Your task to perform on an android device: find which apps use the phone's location Image 0: 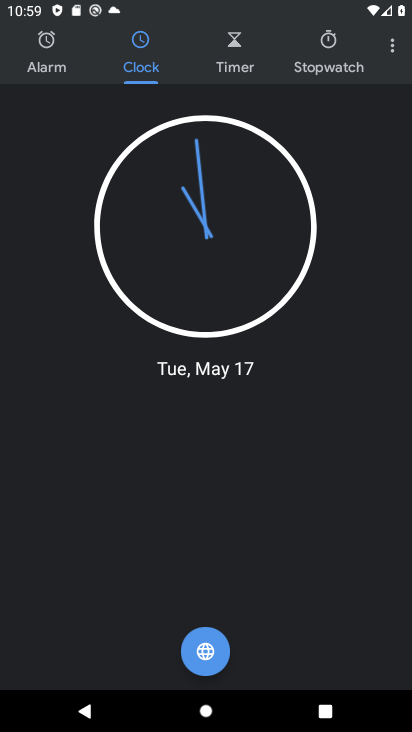
Step 0: press home button
Your task to perform on an android device: find which apps use the phone's location Image 1: 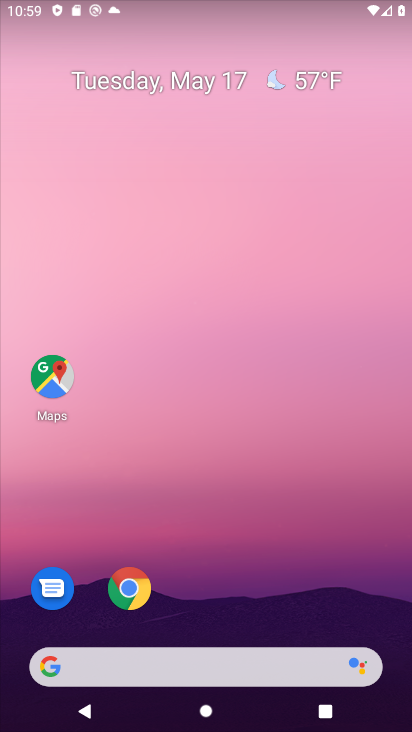
Step 1: drag from (316, 559) to (316, 72)
Your task to perform on an android device: find which apps use the phone's location Image 2: 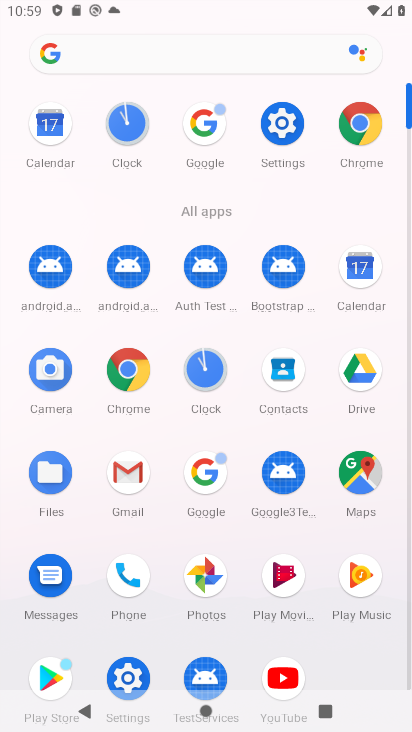
Step 2: click (275, 122)
Your task to perform on an android device: find which apps use the phone's location Image 3: 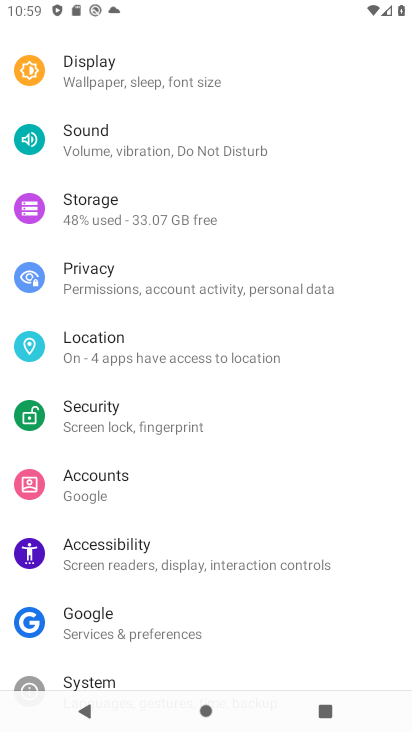
Step 3: click (165, 350)
Your task to perform on an android device: find which apps use the phone's location Image 4: 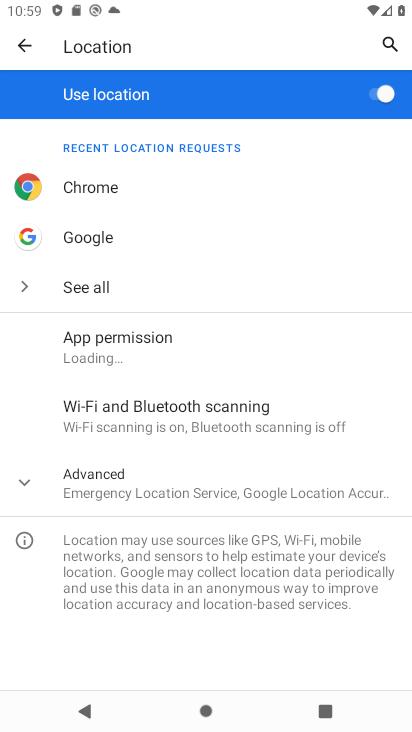
Step 4: click (171, 198)
Your task to perform on an android device: find which apps use the phone's location Image 5: 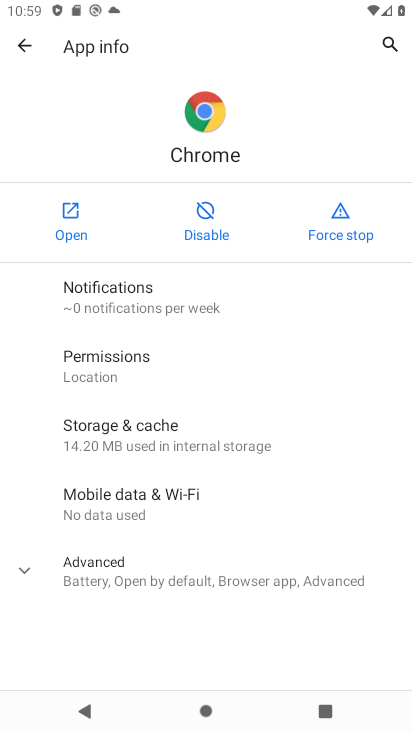
Step 5: click (137, 372)
Your task to perform on an android device: find which apps use the phone's location Image 6: 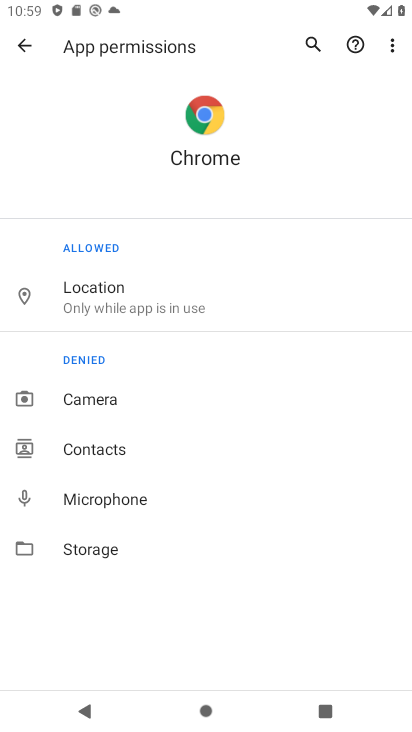
Step 6: task complete